Your task to perform on an android device: Open Chrome and go to settings Image 0: 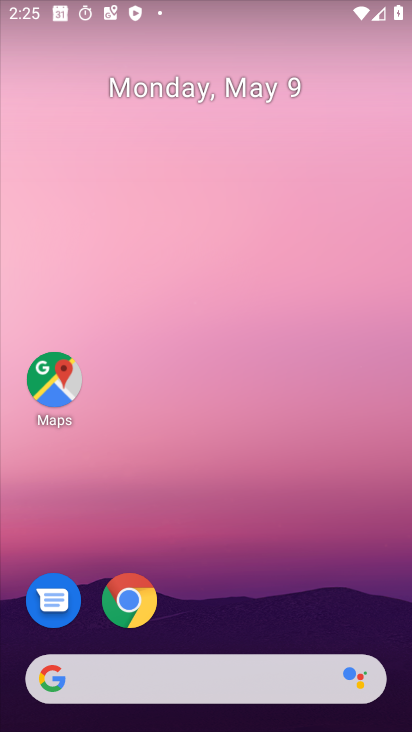
Step 0: click (116, 596)
Your task to perform on an android device: Open Chrome and go to settings Image 1: 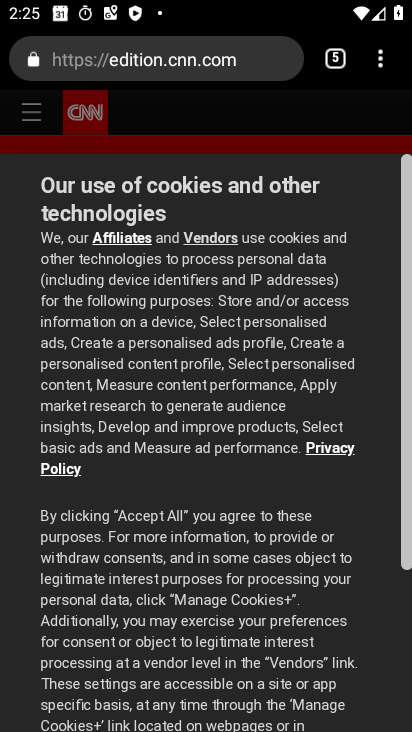
Step 1: press back button
Your task to perform on an android device: Open Chrome and go to settings Image 2: 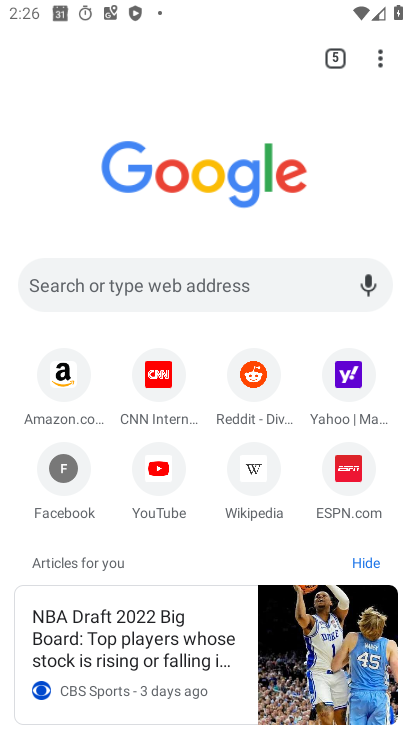
Step 2: click (379, 50)
Your task to perform on an android device: Open Chrome and go to settings Image 3: 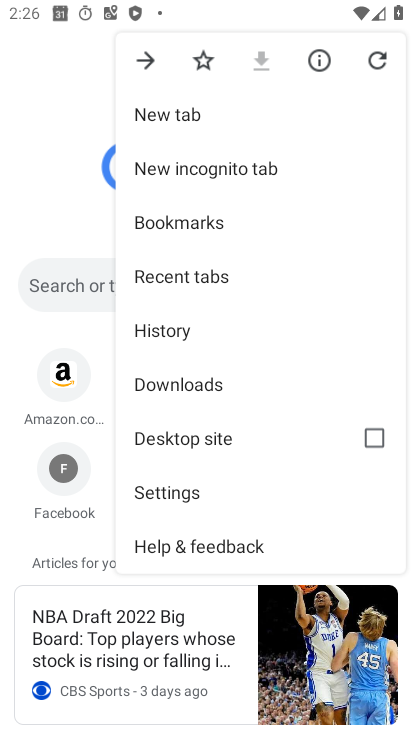
Step 3: click (172, 487)
Your task to perform on an android device: Open Chrome and go to settings Image 4: 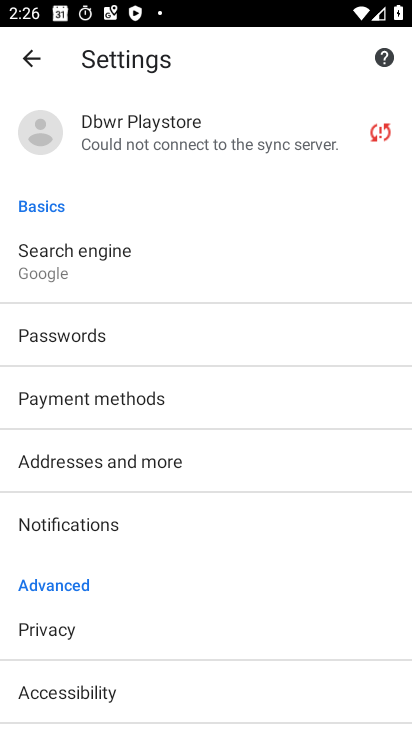
Step 4: task complete